Your task to perform on an android device: empty trash in the gmail app Image 0: 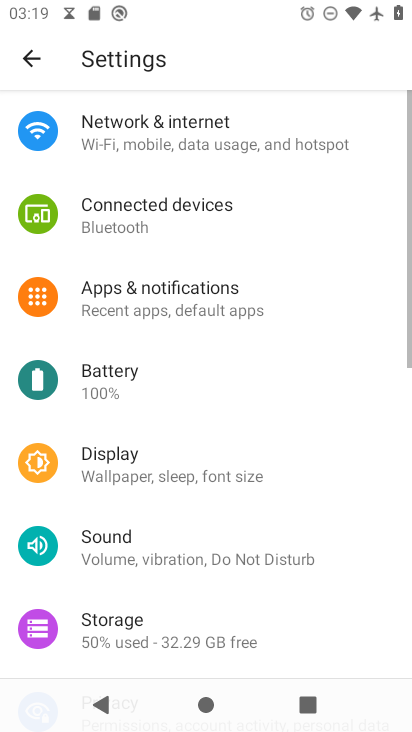
Step 0: press home button
Your task to perform on an android device: empty trash in the gmail app Image 1: 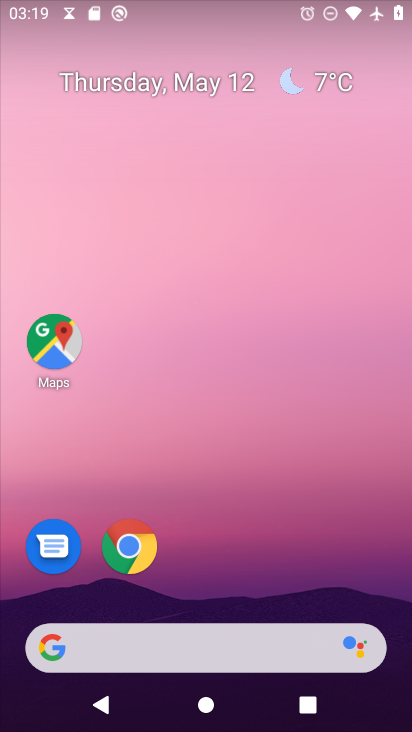
Step 1: drag from (165, 650) to (303, 137)
Your task to perform on an android device: empty trash in the gmail app Image 2: 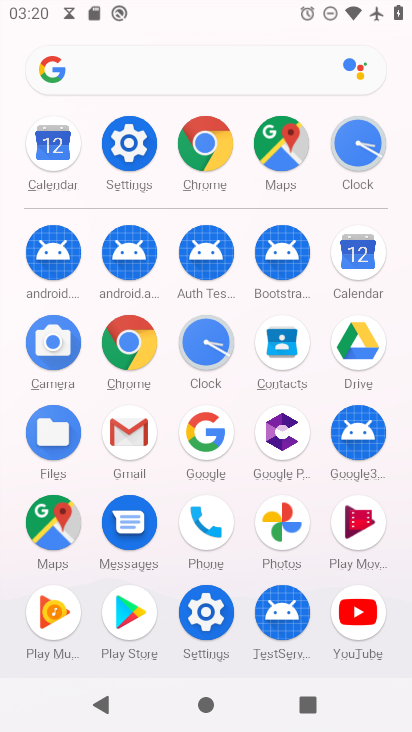
Step 2: click (133, 442)
Your task to perform on an android device: empty trash in the gmail app Image 3: 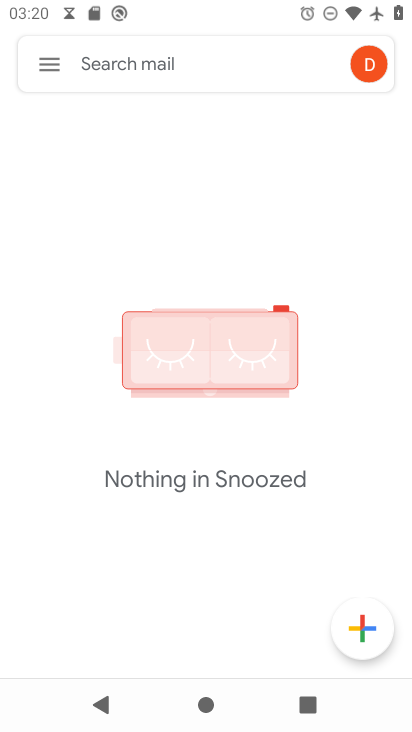
Step 3: click (49, 65)
Your task to perform on an android device: empty trash in the gmail app Image 4: 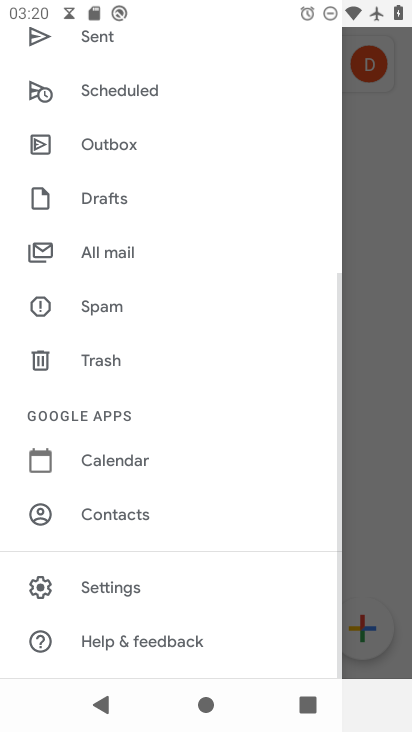
Step 4: click (105, 361)
Your task to perform on an android device: empty trash in the gmail app Image 5: 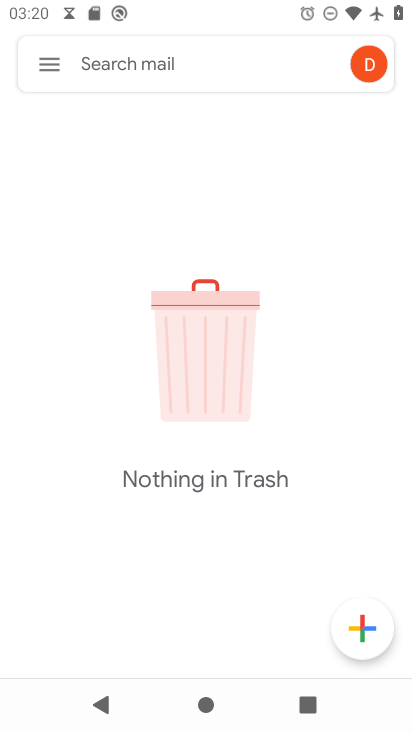
Step 5: task complete